Your task to perform on an android device: Open Maps and search for coffee Image 0: 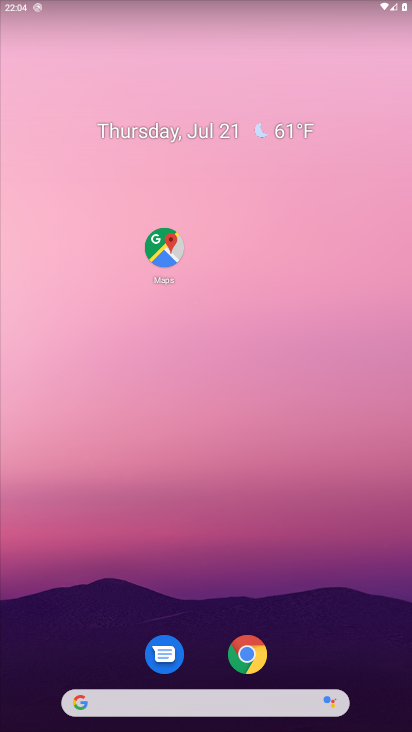
Step 0: click (172, 252)
Your task to perform on an android device: Open Maps and search for coffee Image 1: 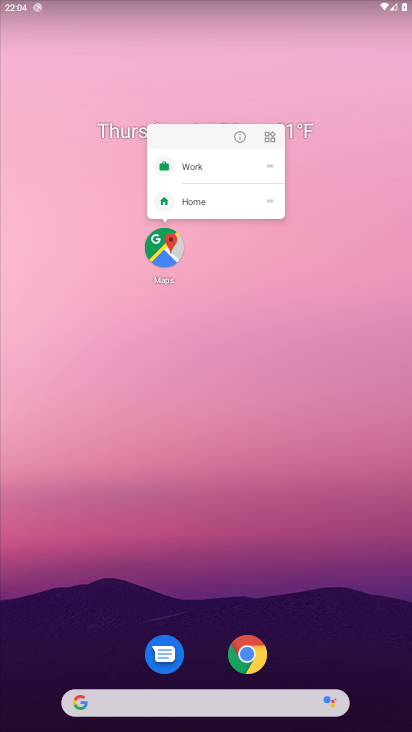
Step 1: click (171, 253)
Your task to perform on an android device: Open Maps and search for coffee Image 2: 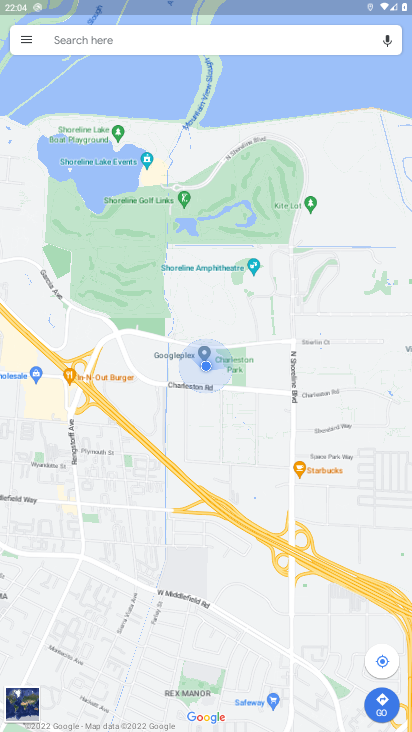
Step 2: click (72, 35)
Your task to perform on an android device: Open Maps and search for coffee Image 3: 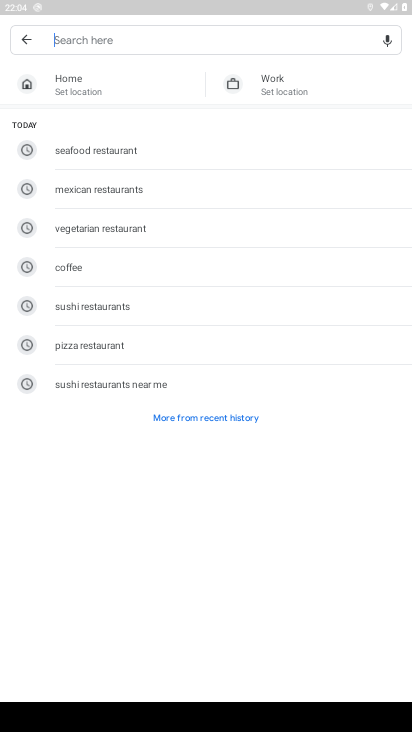
Step 3: click (80, 273)
Your task to perform on an android device: Open Maps and search for coffee Image 4: 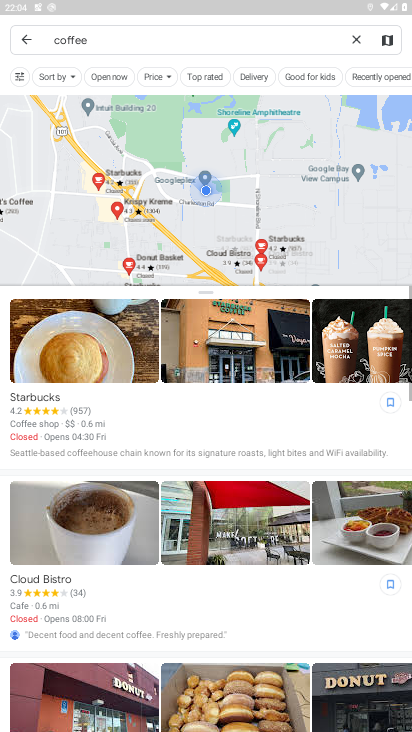
Step 4: task complete